Your task to perform on an android device: Open the web browser Image 0: 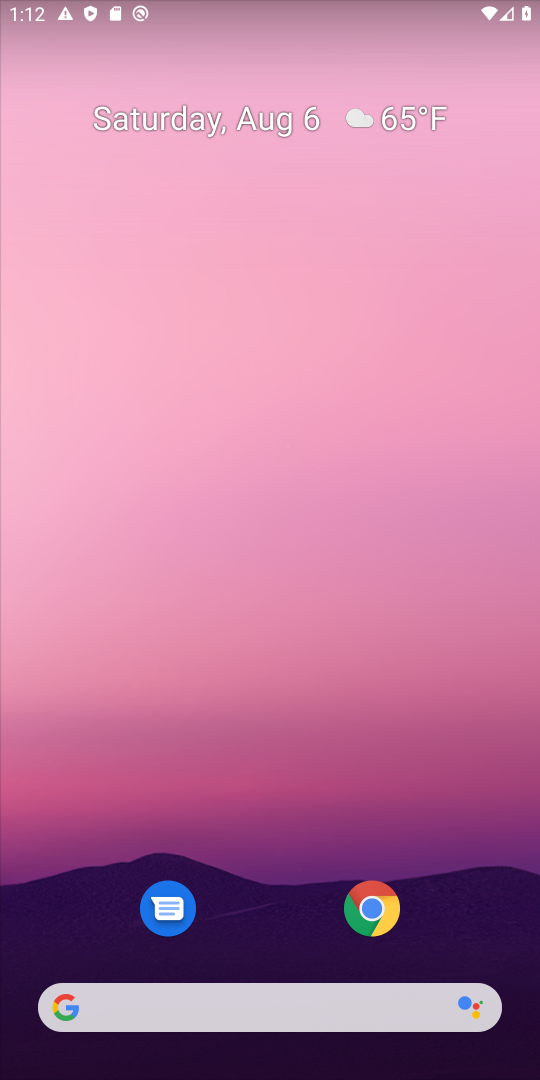
Step 0: click (368, 904)
Your task to perform on an android device: Open the web browser Image 1: 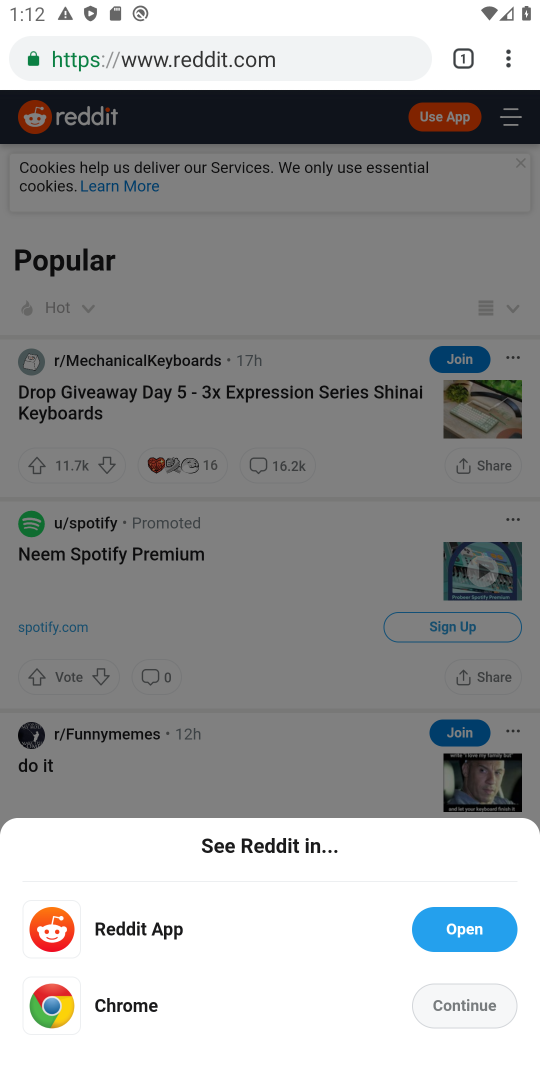
Step 1: task complete